Your task to perform on an android device: Search for Mexican restaurants on Maps Image 0: 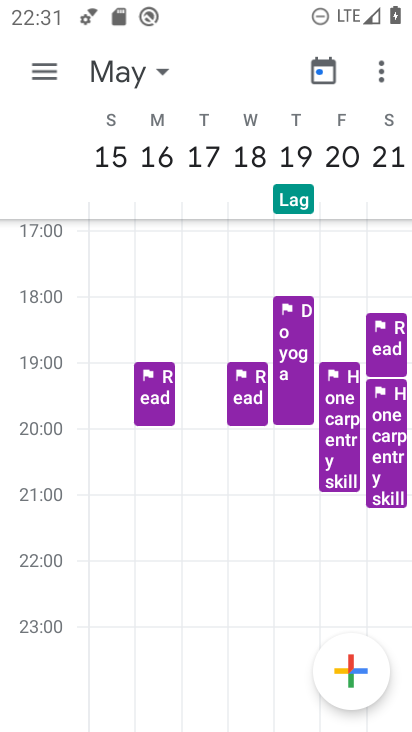
Step 0: press home button
Your task to perform on an android device: Search for Mexican restaurants on Maps Image 1: 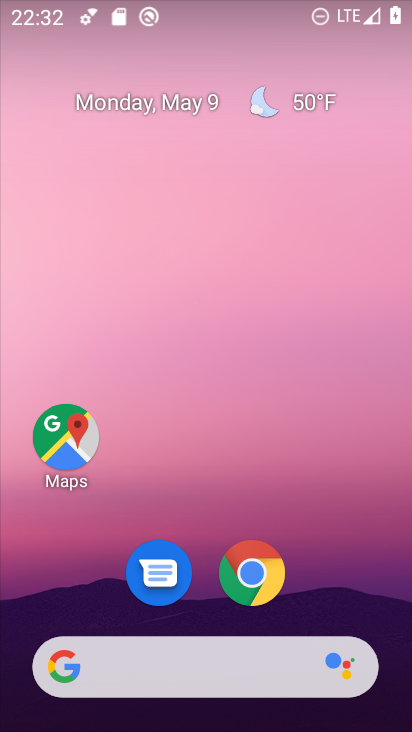
Step 1: click (63, 448)
Your task to perform on an android device: Search for Mexican restaurants on Maps Image 2: 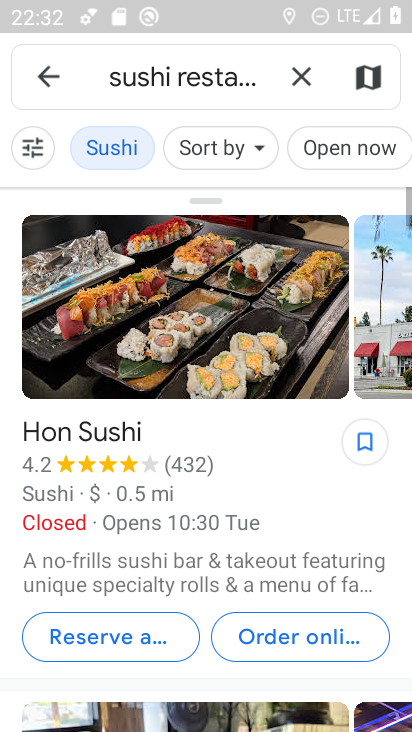
Step 2: click (164, 59)
Your task to perform on an android device: Search for Mexican restaurants on Maps Image 3: 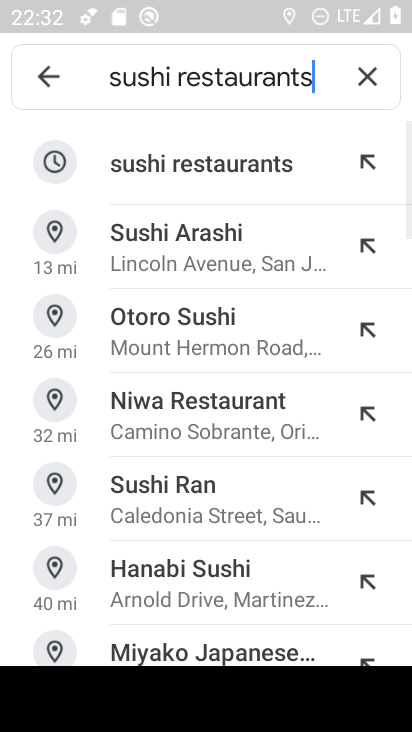
Step 3: click (367, 75)
Your task to perform on an android device: Search for Mexican restaurants on Maps Image 4: 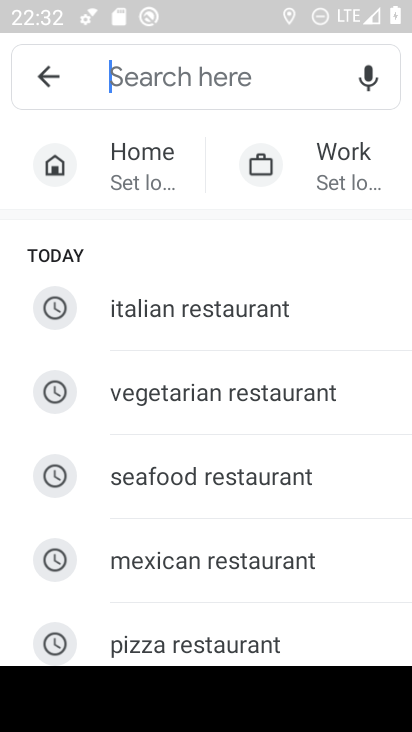
Step 4: type "Mexican restaurants"
Your task to perform on an android device: Search for Mexican restaurants on Maps Image 5: 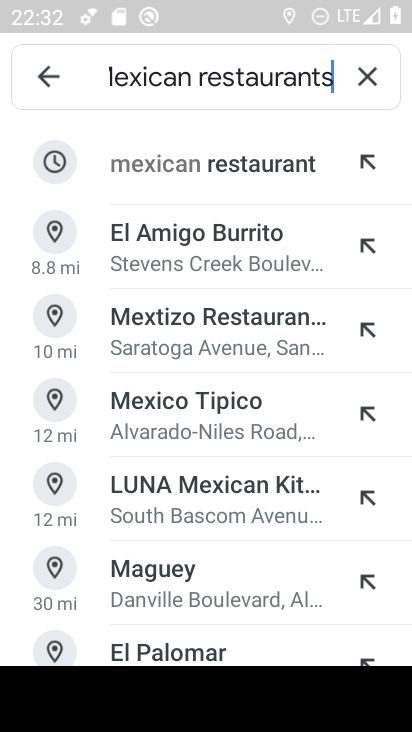
Step 5: press enter
Your task to perform on an android device: Search for Mexican restaurants on Maps Image 6: 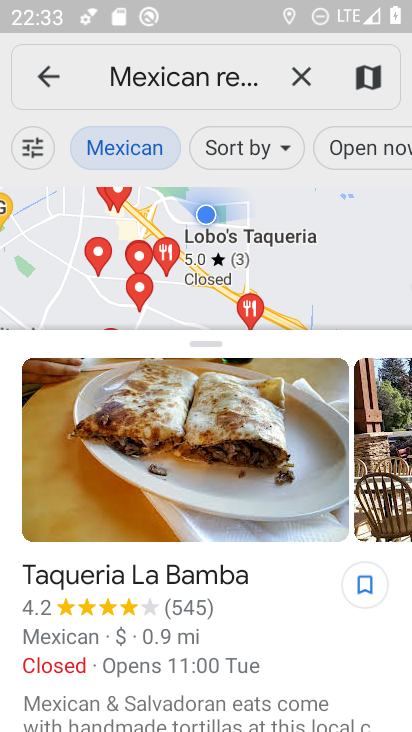
Step 6: task complete